Your task to perform on an android device: all mails in gmail Image 0: 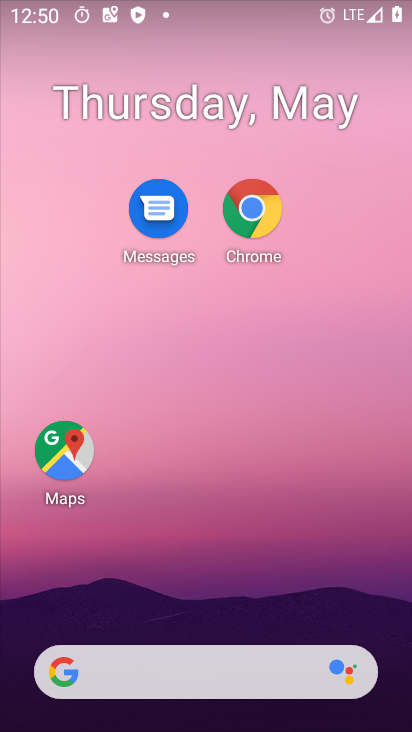
Step 0: drag from (227, 597) to (19, 0)
Your task to perform on an android device: all mails in gmail Image 1: 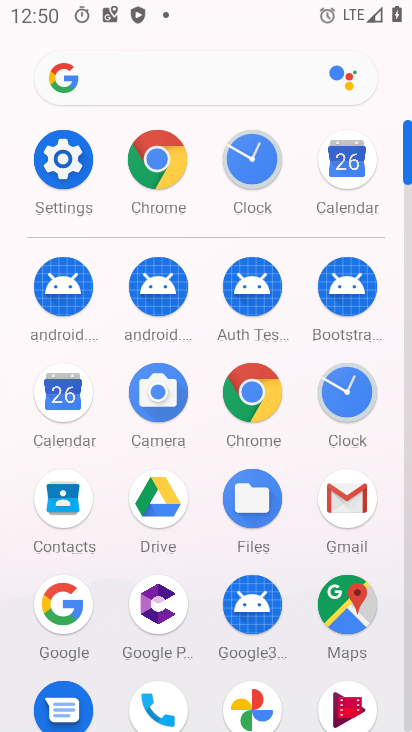
Step 1: click (339, 527)
Your task to perform on an android device: all mails in gmail Image 2: 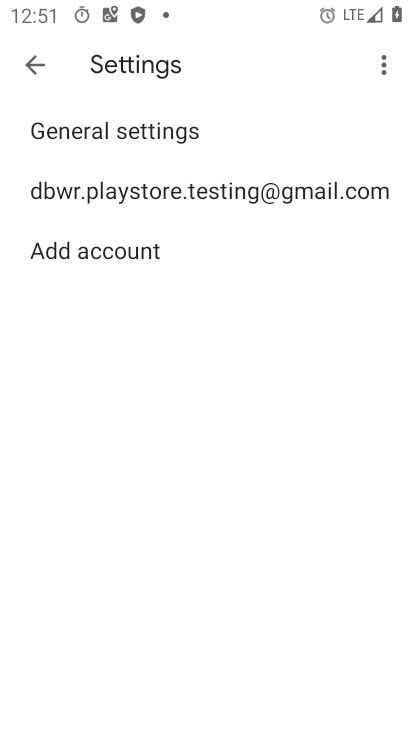
Step 2: click (140, 191)
Your task to perform on an android device: all mails in gmail Image 3: 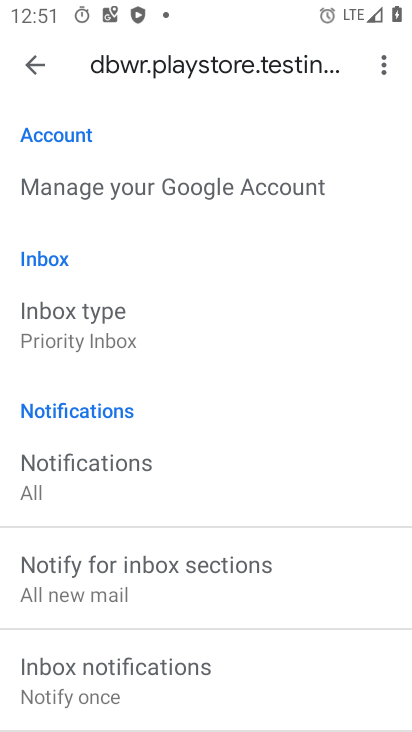
Step 3: click (34, 61)
Your task to perform on an android device: all mails in gmail Image 4: 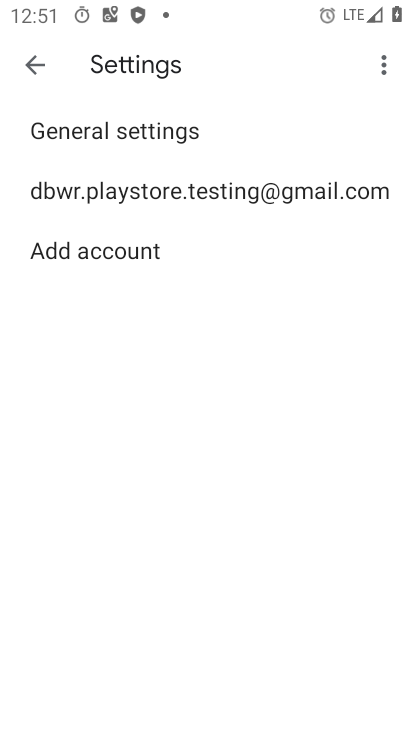
Step 4: click (42, 73)
Your task to perform on an android device: all mails in gmail Image 5: 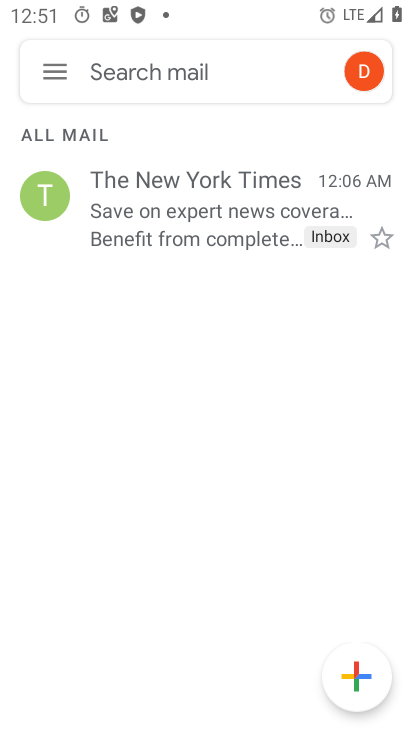
Step 5: click (42, 73)
Your task to perform on an android device: all mails in gmail Image 6: 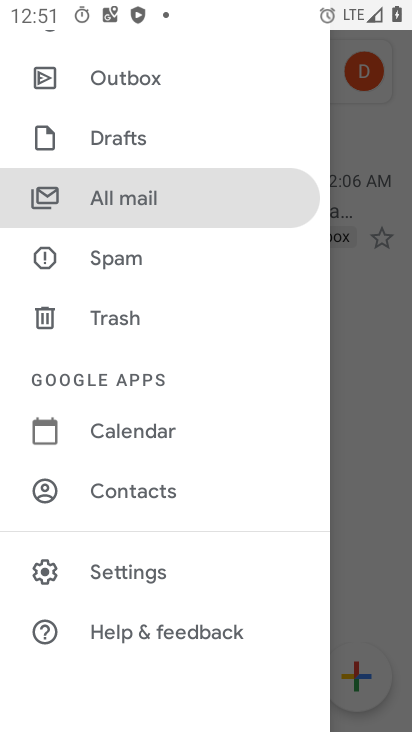
Step 6: click (103, 198)
Your task to perform on an android device: all mails in gmail Image 7: 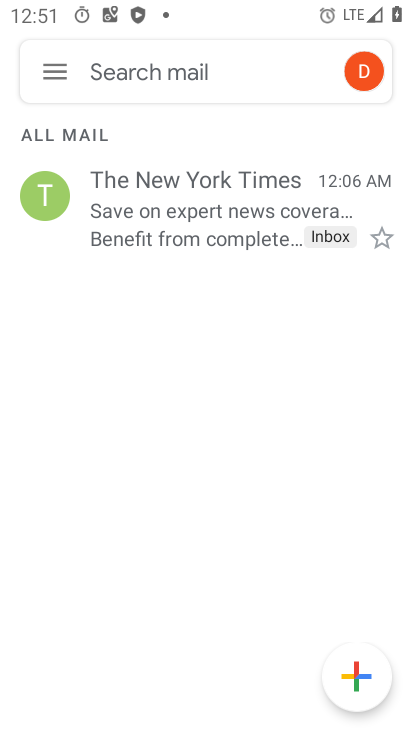
Step 7: task complete